Your task to perform on an android device: Show me popular games on the Play Store Image 0: 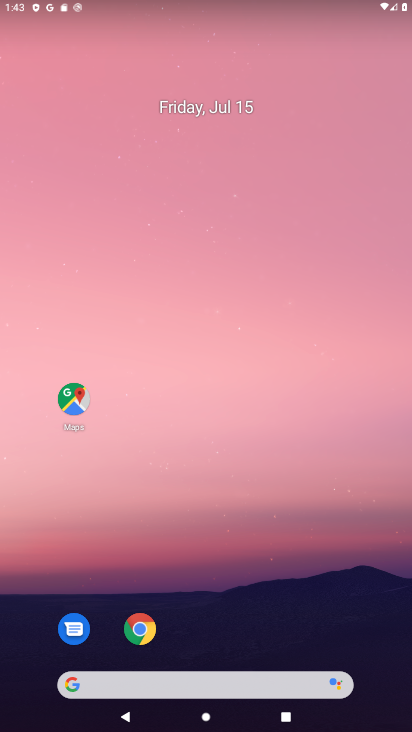
Step 0: drag from (199, 617) to (162, 18)
Your task to perform on an android device: Show me popular games on the Play Store Image 1: 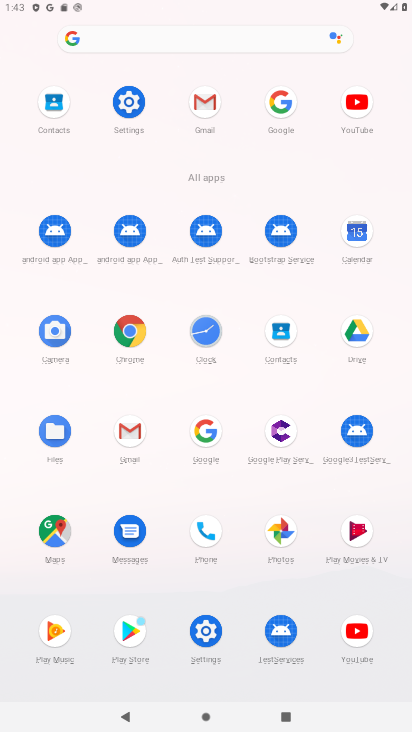
Step 1: click (133, 638)
Your task to perform on an android device: Show me popular games on the Play Store Image 2: 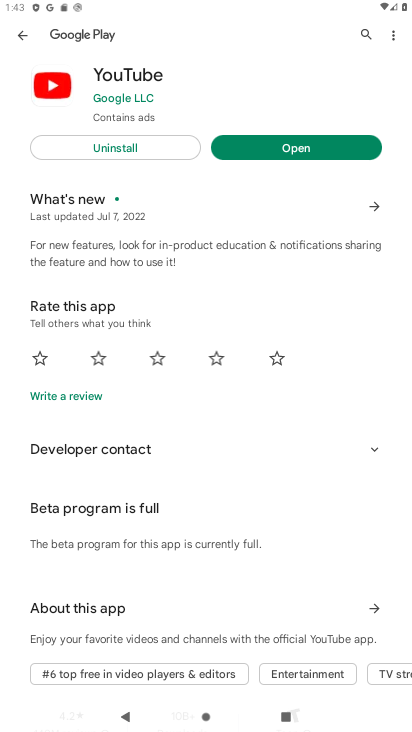
Step 2: click (276, 162)
Your task to perform on an android device: Show me popular games on the Play Store Image 3: 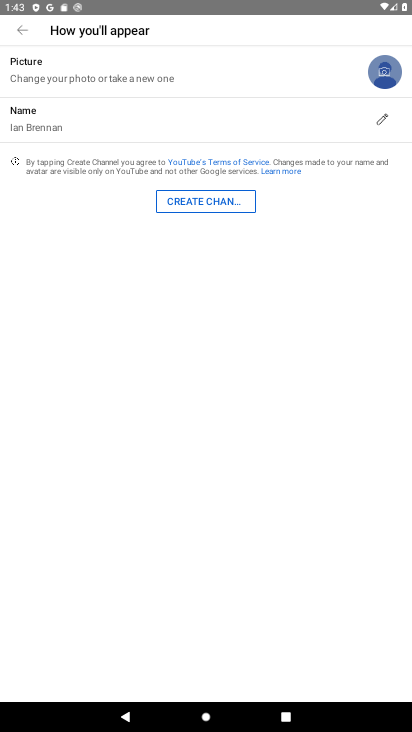
Step 3: click (20, 35)
Your task to perform on an android device: Show me popular games on the Play Store Image 4: 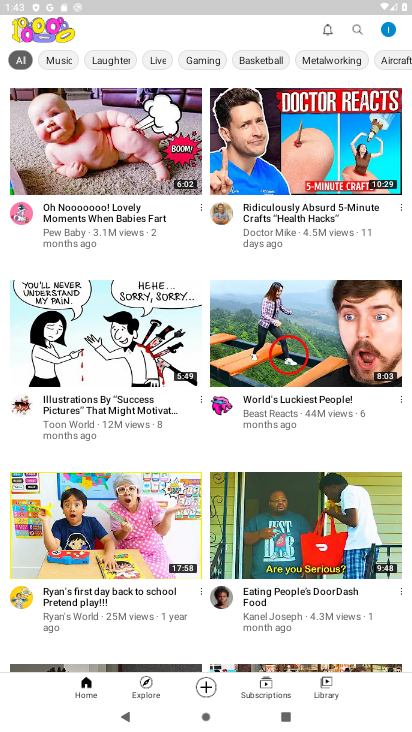
Step 4: press back button
Your task to perform on an android device: Show me popular games on the Play Store Image 5: 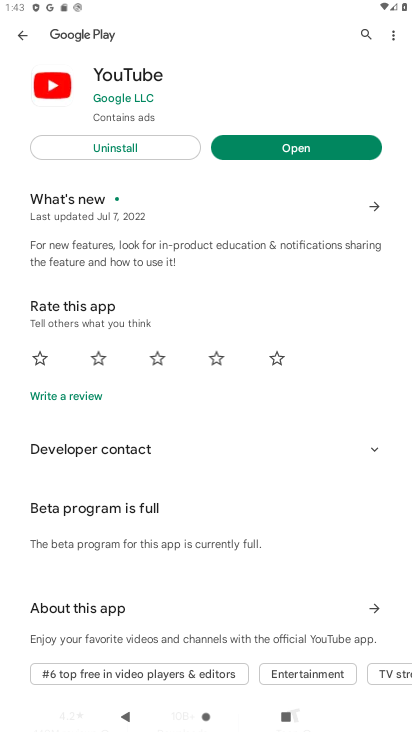
Step 5: press back button
Your task to perform on an android device: Show me popular games on the Play Store Image 6: 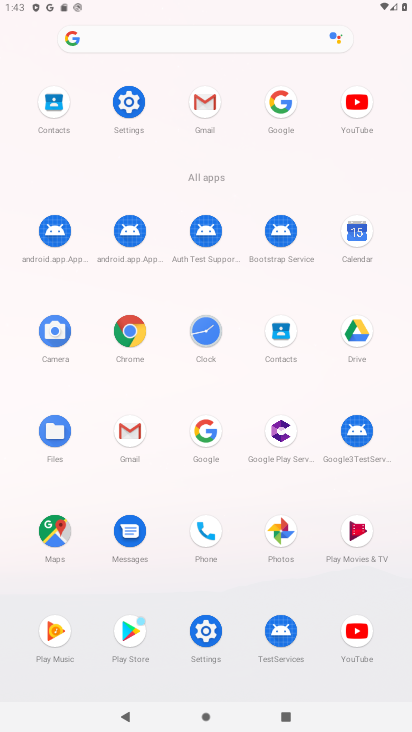
Step 6: click (128, 634)
Your task to perform on an android device: Show me popular games on the Play Store Image 7: 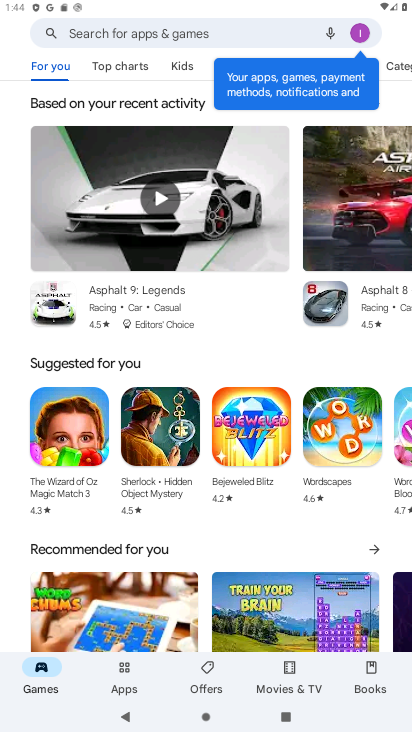
Step 7: task complete